Your task to perform on an android device: change text size in settings app Image 0: 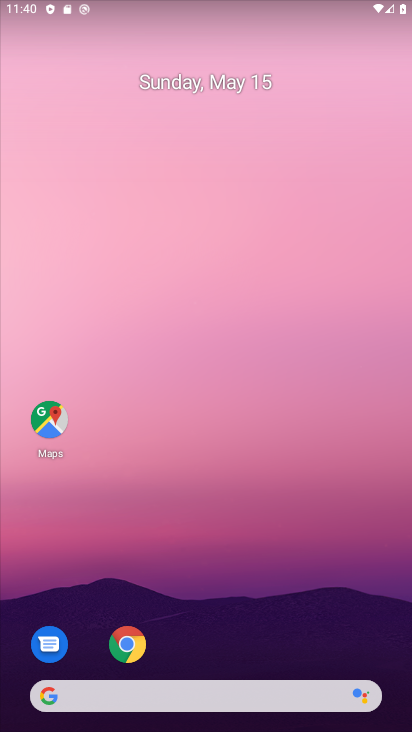
Step 0: drag from (253, 625) to (148, 67)
Your task to perform on an android device: change text size in settings app Image 1: 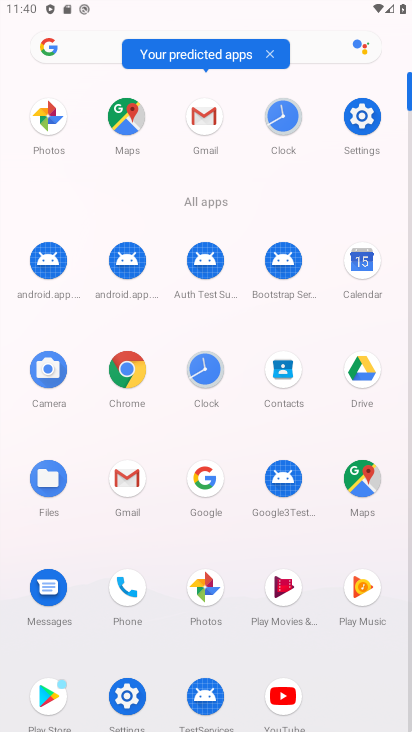
Step 1: click (354, 112)
Your task to perform on an android device: change text size in settings app Image 2: 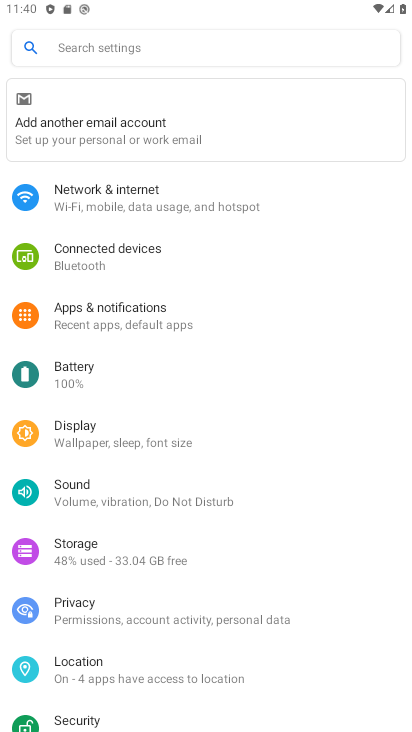
Step 2: click (130, 433)
Your task to perform on an android device: change text size in settings app Image 3: 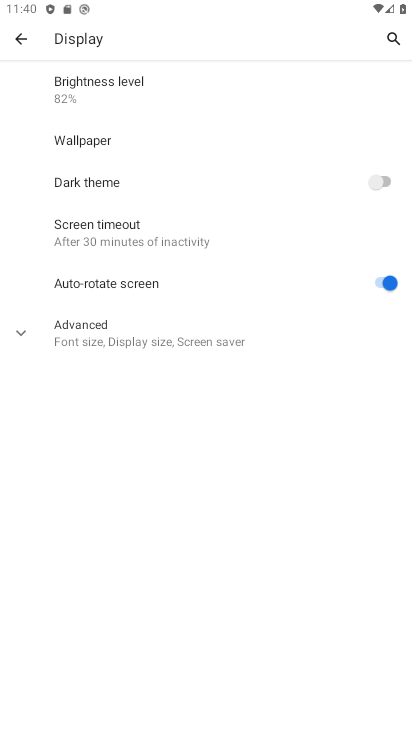
Step 3: click (220, 333)
Your task to perform on an android device: change text size in settings app Image 4: 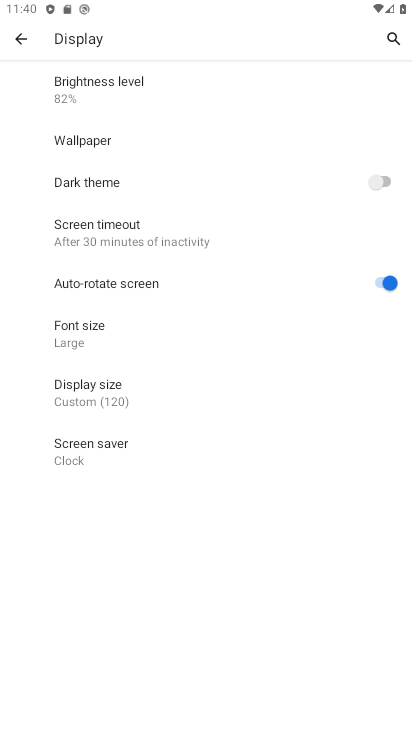
Step 4: click (188, 322)
Your task to perform on an android device: change text size in settings app Image 5: 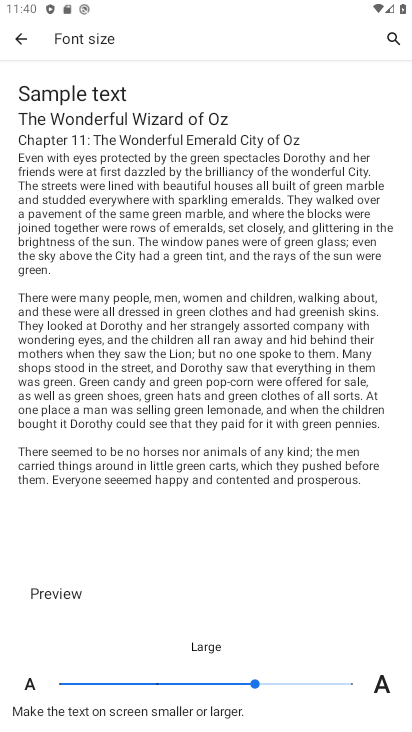
Step 5: click (171, 686)
Your task to perform on an android device: change text size in settings app Image 6: 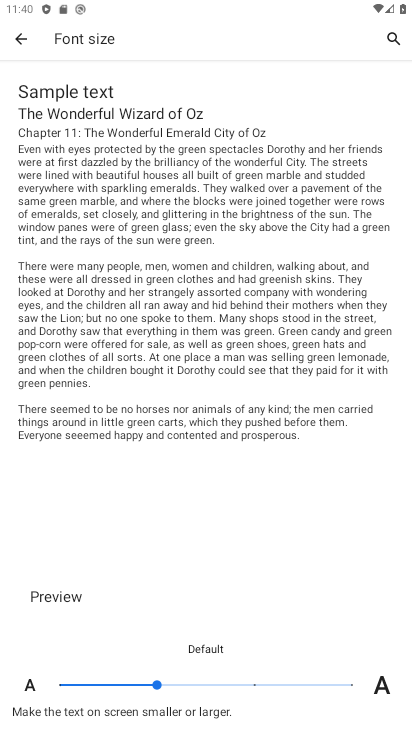
Step 6: task complete